Your task to perform on an android device: Open Amazon Image 0: 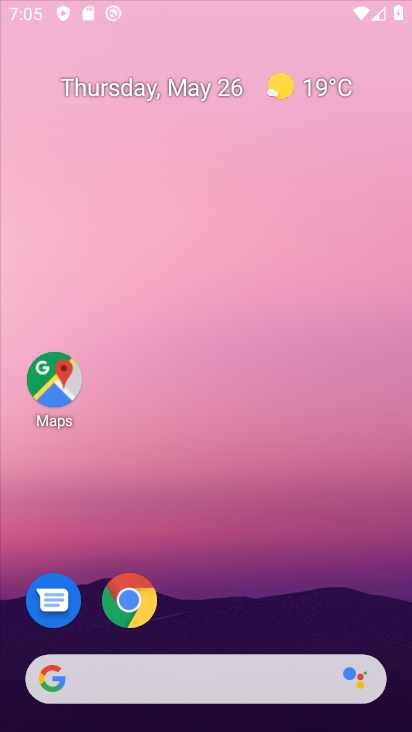
Step 0: press home button
Your task to perform on an android device: Open Amazon Image 1: 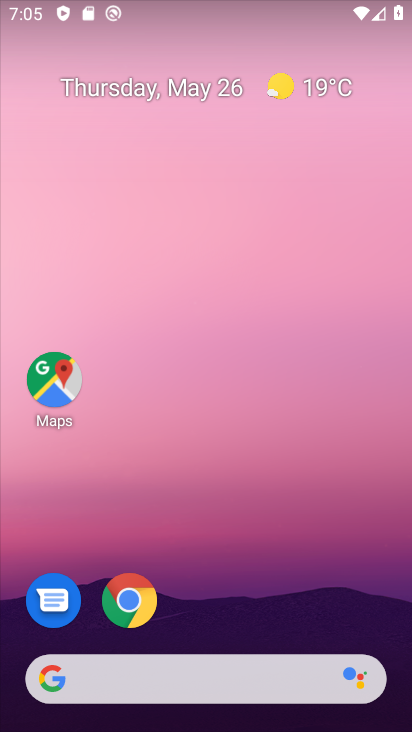
Step 1: drag from (218, 683) to (183, 124)
Your task to perform on an android device: Open Amazon Image 2: 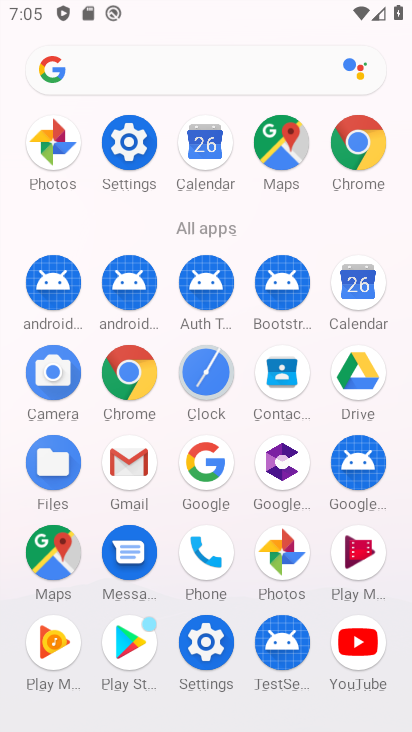
Step 2: click (354, 158)
Your task to perform on an android device: Open Amazon Image 3: 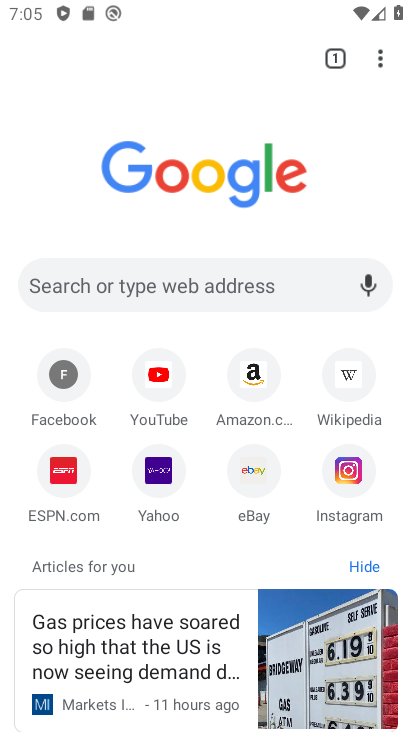
Step 3: click (249, 378)
Your task to perform on an android device: Open Amazon Image 4: 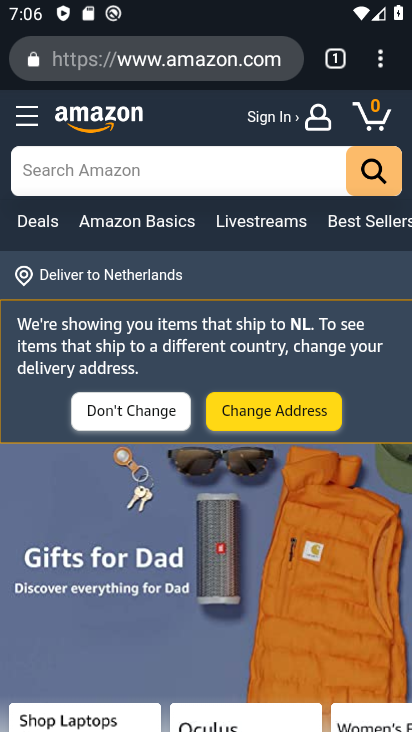
Step 4: task complete